Your task to perform on an android device: see sites visited before in the chrome app Image 0: 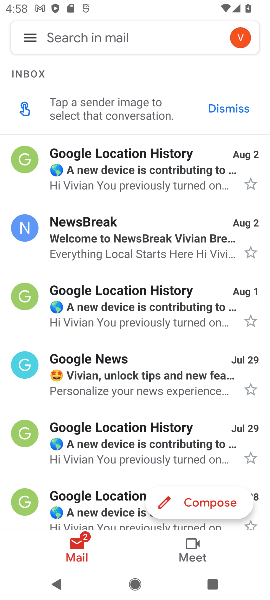
Step 0: press home button
Your task to perform on an android device: see sites visited before in the chrome app Image 1: 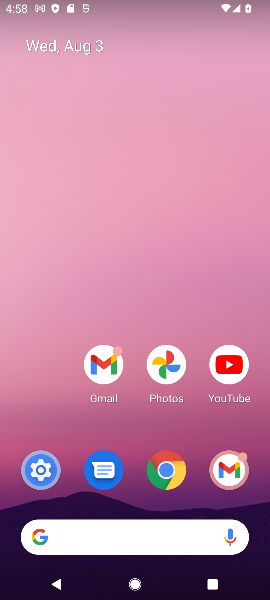
Step 1: drag from (200, 408) to (181, 114)
Your task to perform on an android device: see sites visited before in the chrome app Image 2: 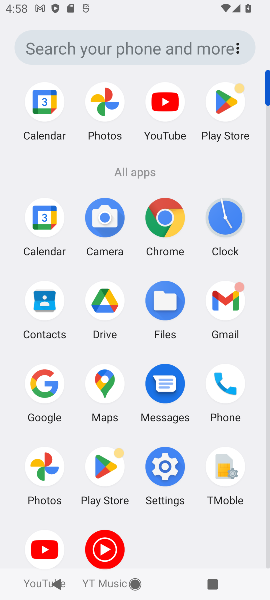
Step 2: click (162, 217)
Your task to perform on an android device: see sites visited before in the chrome app Image 3: 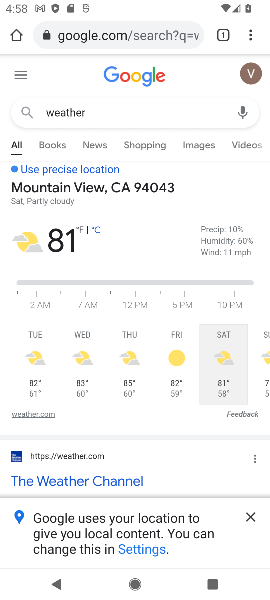
Step 3: click (253, 30)
Your task to perform on an android device: see sites visited before in the chrome app Image 4: 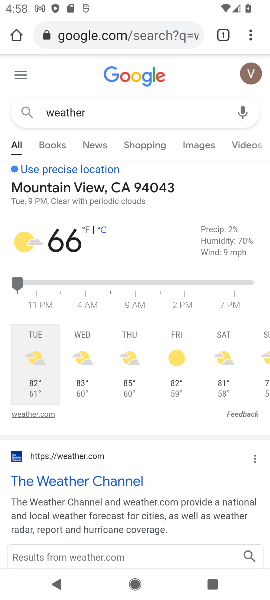
Step 4: task complete